Your task to perform on an android device: Open Youtube and go to the subscriptions tab Image 0: 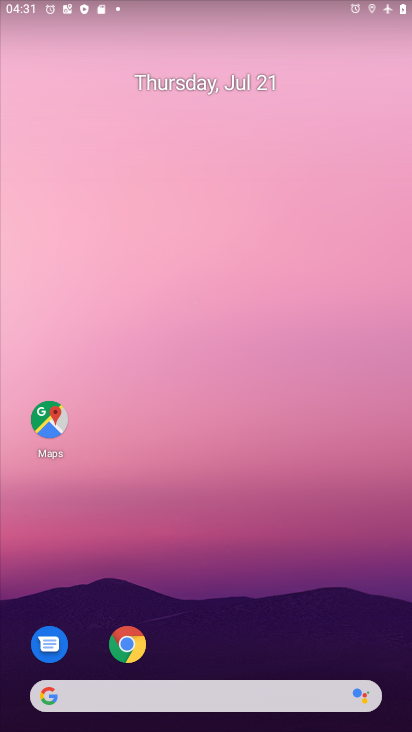
Step 0: drag from (240, 654) to (234, 18)
Your task to perform on an android device: Open Youtube and go to the subscriptions tab Image 1: 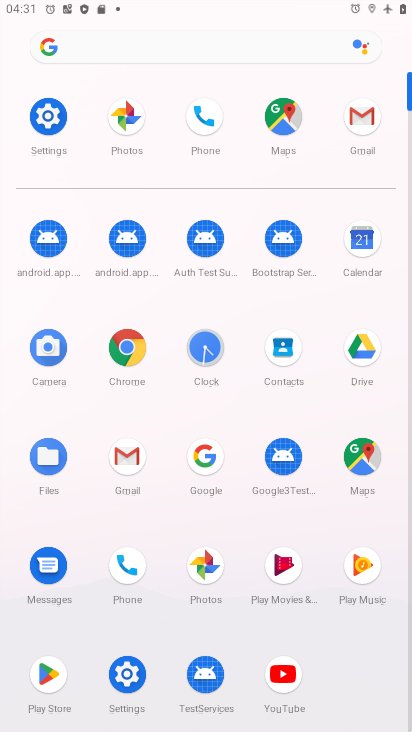
Step 1: click (287, 673)
Your task to perform on an android device: Open Youtube and go to the subscriptions tab Image 2: 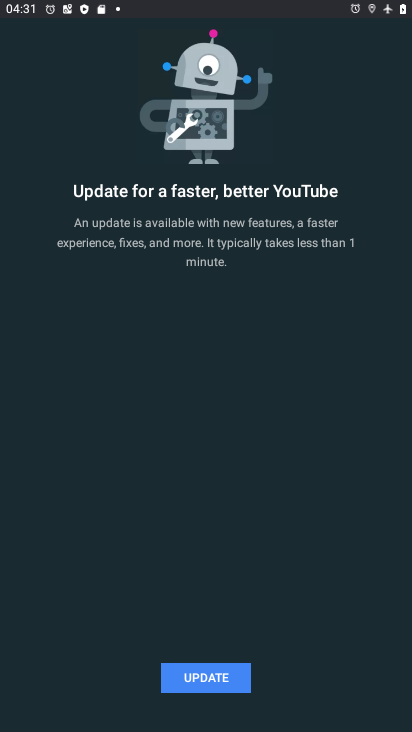
Step 2: click (197, 683)
Your task to perform on an android device: Open Youtube and go to the subscriptions tab Image 3: 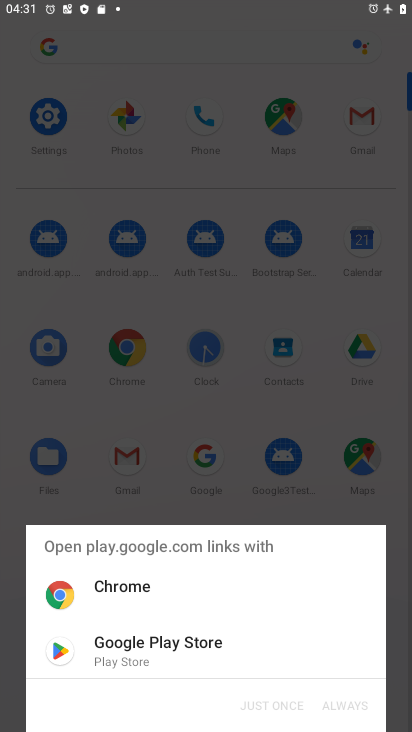
Step 3: click (109, 646)
Your task to perform on an android device: Open Youtube and go to the subscriptions tab Image 4: 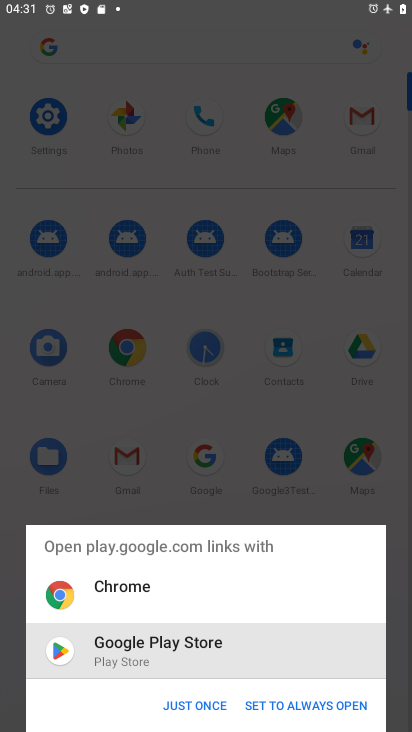
Step 4: click (205, 704)
Your task to perform on an android device: Open Youtube and go to the subscriptions tab Image 5: 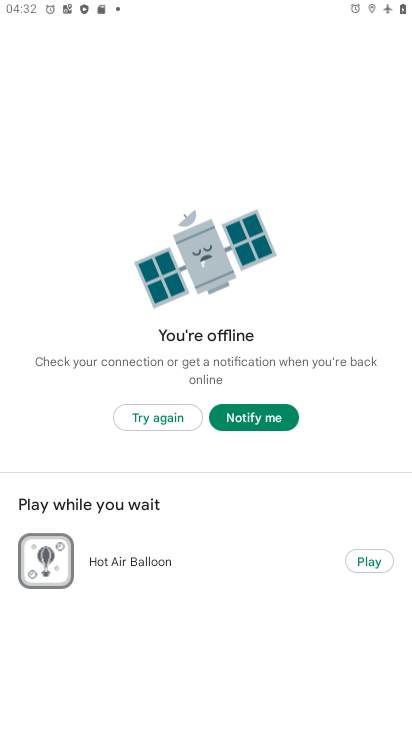
Step 5: click (167, 422)
Your task to perform on an android device: Open Youtube and go to the subscriptions tab Image 6: 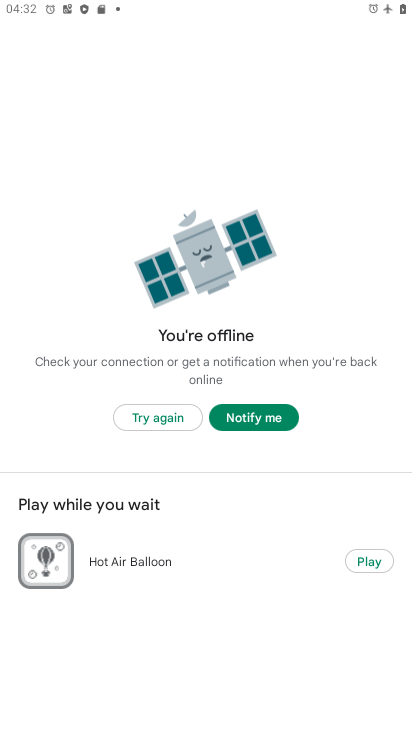
Step 6: task complete